Your task to perform on an android device: clear history in the chrome app Image 0: 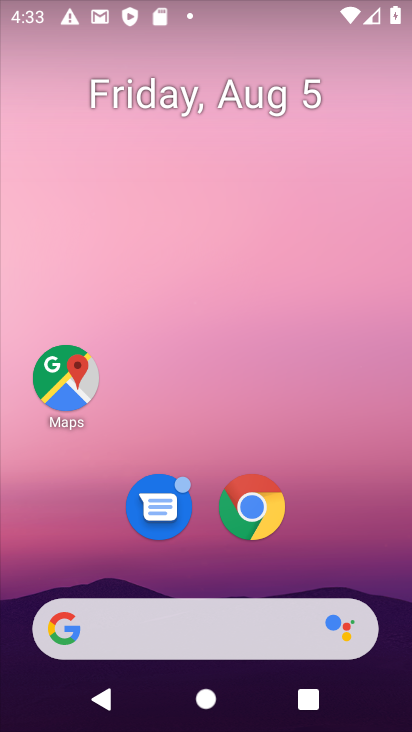
Step 0: click (248, 506)
Your task to perform on an android device: clear history in the chrome app Image 1: 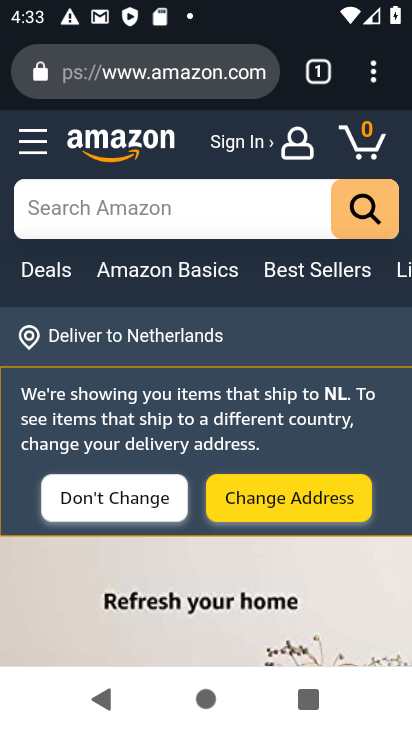
Step 1: click (376, 76)
Your task to perform on an android device: clear history in the chrome app Image 2: 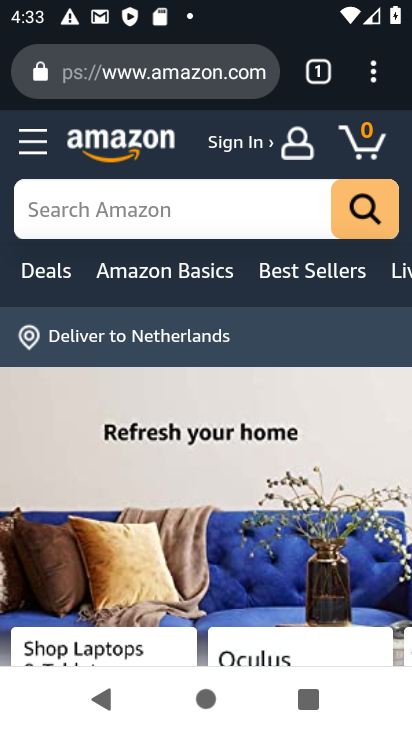
Step 2: click (375, 77)
Your task to perform on an android device: clear history in the chrome app Image 3: 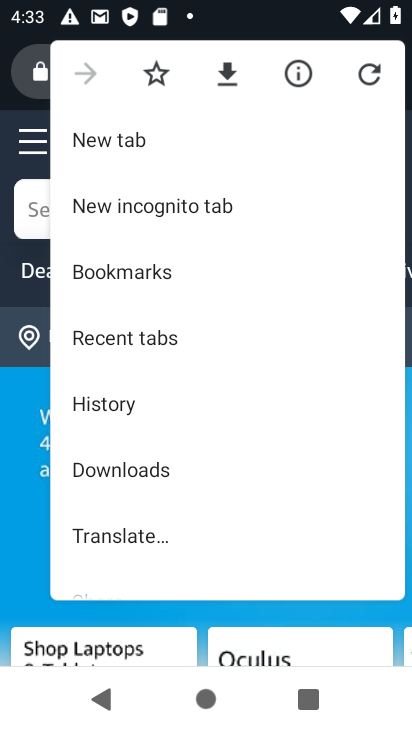
Step 3: click (109, 407)
Your task to perform on an android device: clear history in the chrome app Image 4: 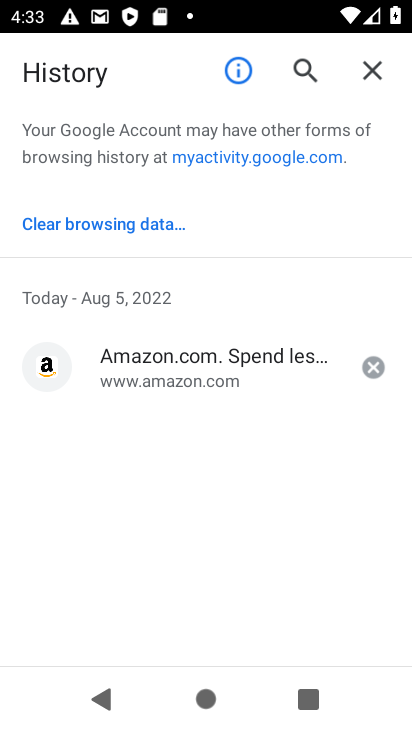
Step 4: click (103, 235)
Your task to perform on an android device: clear history in the chrome app Image 5: 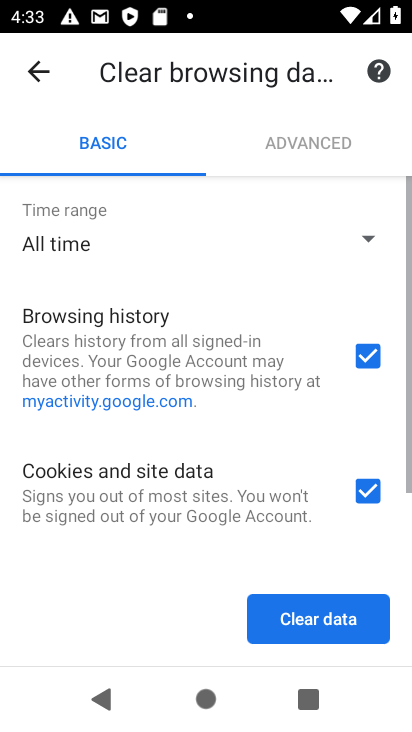
Step 5: click (280, 626)
Your task to perform on an android device: clear history in the chrome app Image 6: 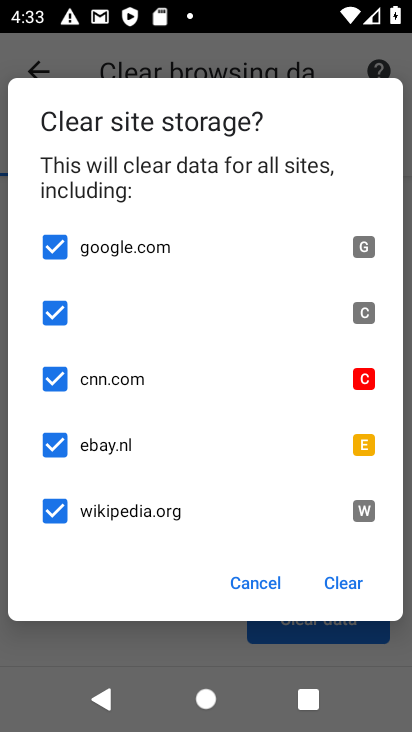
Step 6: click (381, 576)
Your task to perform on an android device: clear history in the chrome app Image 7: 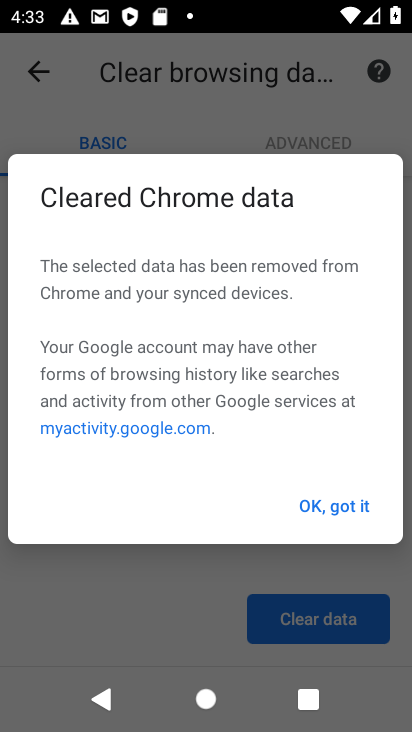
Step 7: click (337, 512)
Your task to perform on an android device: clear history in the chrome app Image 8: 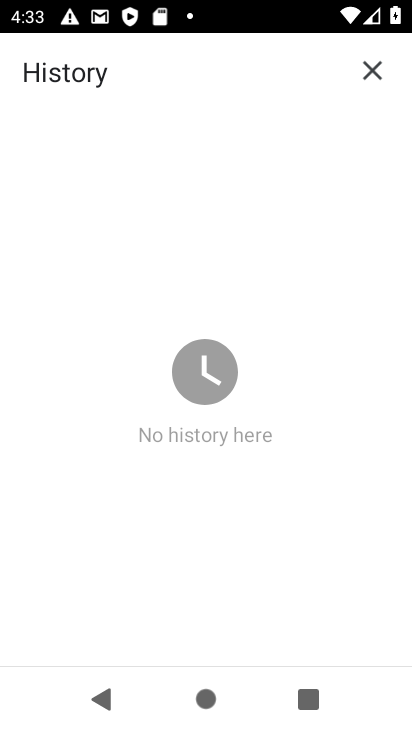
Step 8: task complete